Your task to perform on an android device: Empty the shopping cart on newegg. Add "alienware area 51" to the cart on newegg Image 0: 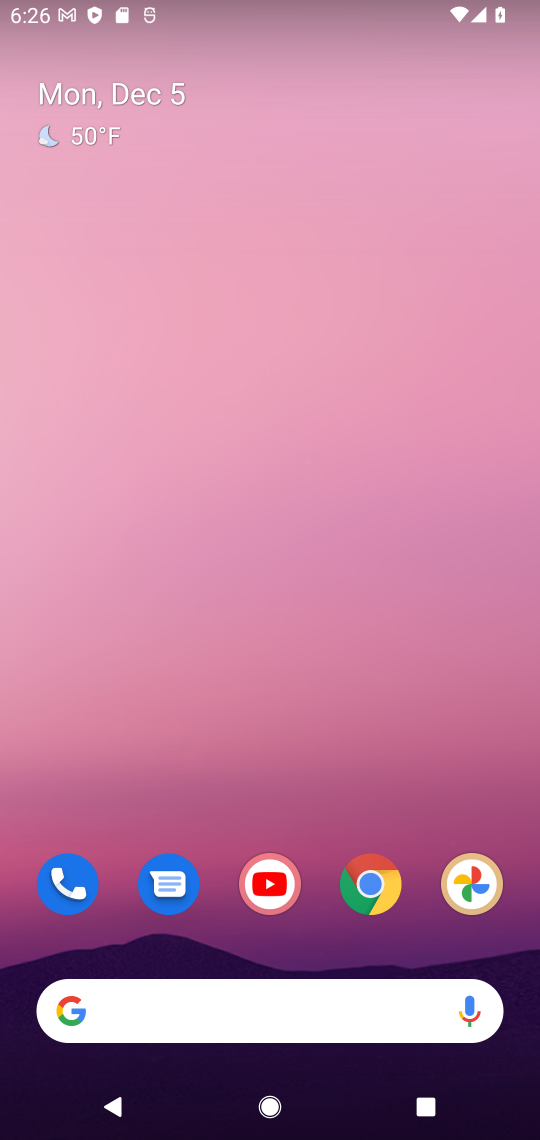
Step 0: click (371, 886)
Your task to perform on an android device: Empty the shopping cart on newegg. Add "alienware area 51" to the cart on newegg Image 1: 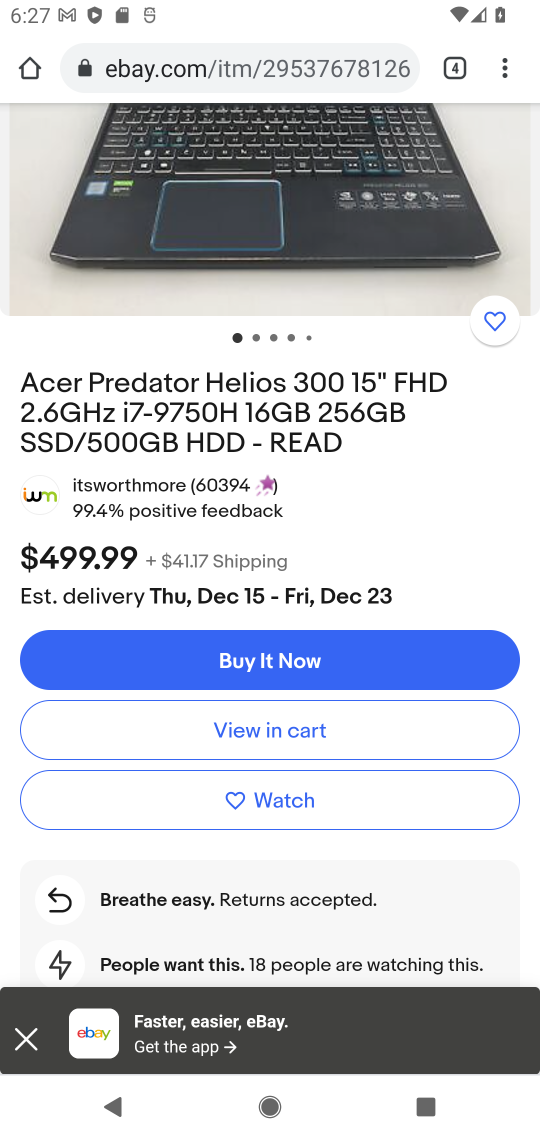
Step 1: press home button
Your task to perform on an android device: Empty the shopping cart on newegg. Add "alienware area 51" to the cart on newegg Image 2: 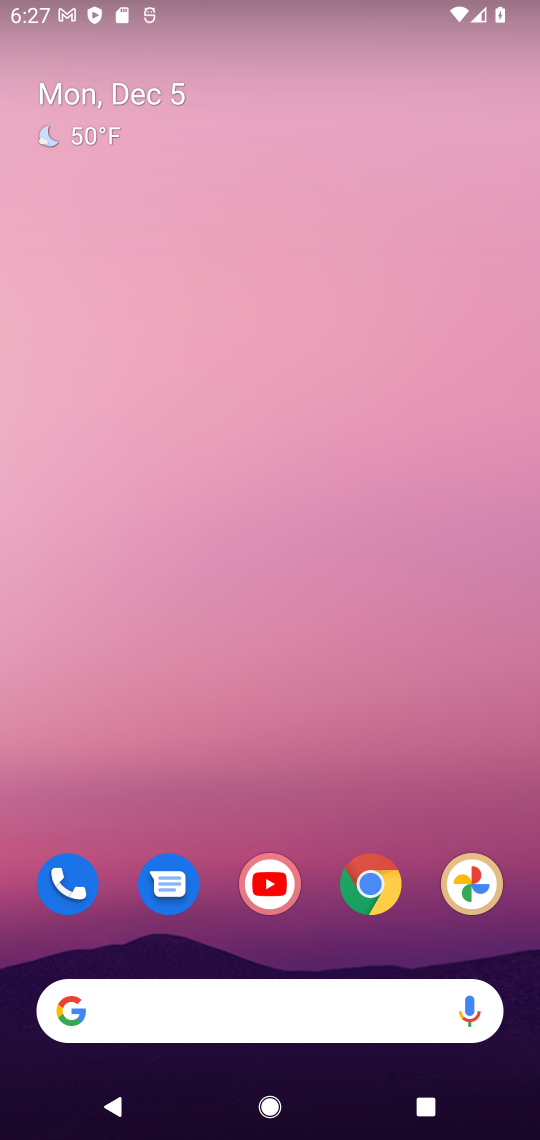
Step 2: click (379, 878)
Your task to perform on an android device: Empty the shopping cart on newegg. Add "alienware area 51" to the cart on newegg Image 3: 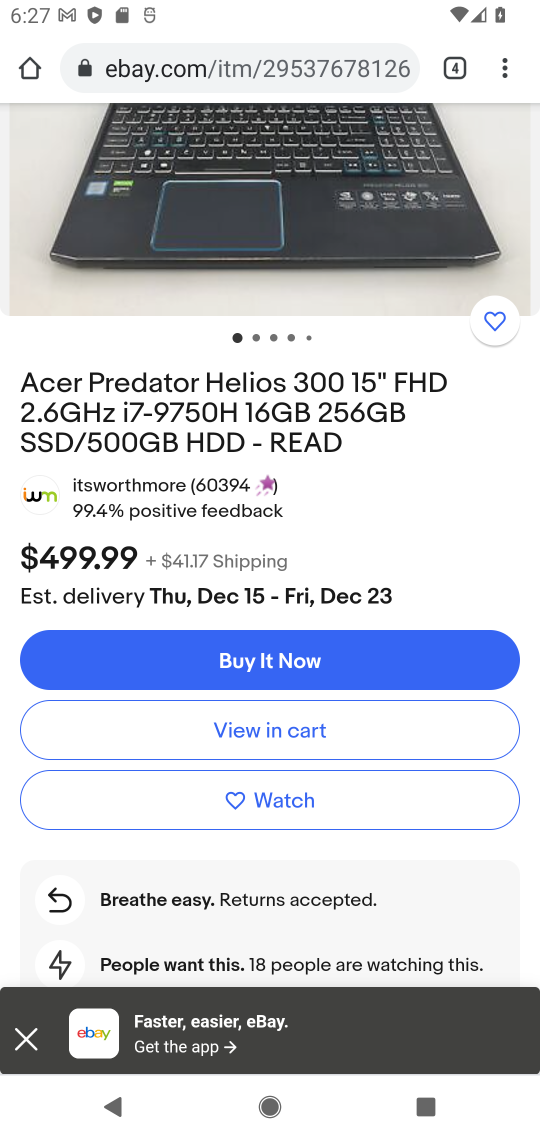
Step 3: click (457, 63)
Your task to perform on an android device: Empty the shopping cart on newegg. Add "alienware area 51" to the cart on newegg Image 4: 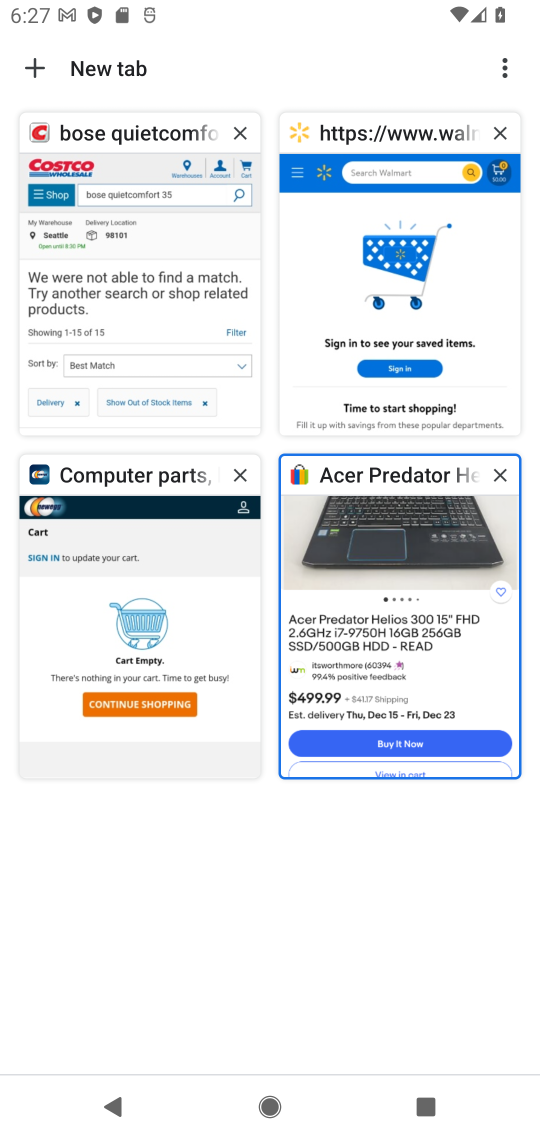
Step 4: click (125, 605)
Your task to perform on an android device: Empty the shopping cart on newegg. Add "alienware area 51" to the cart on newegg Image 5: 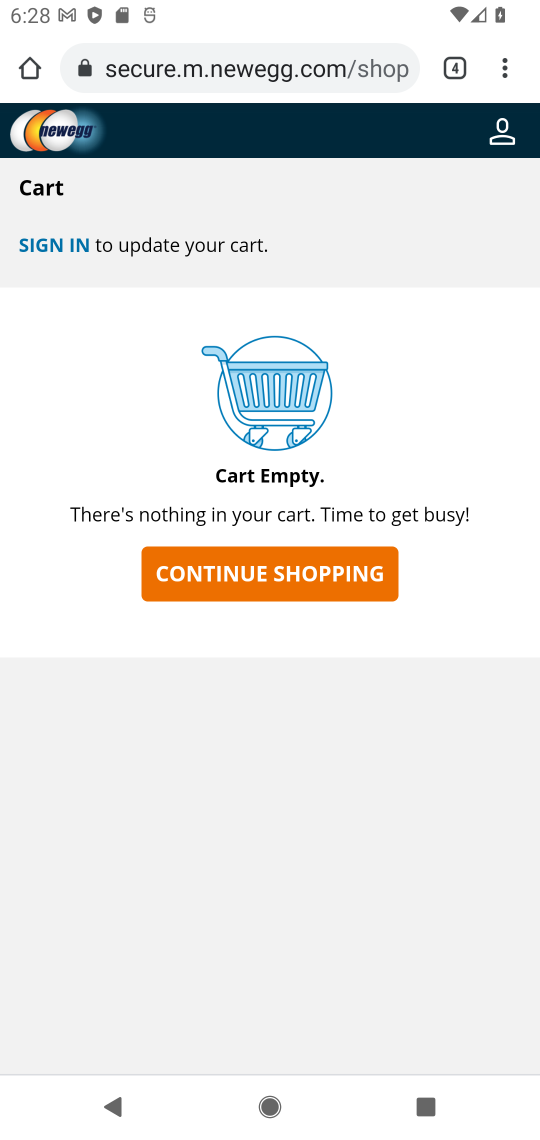
Step 5: click (348, 565)
Your task to perform on an android device: Empty the shopping cart on newegg. Add "alienware area 51" to the cart on newegg Image 6: 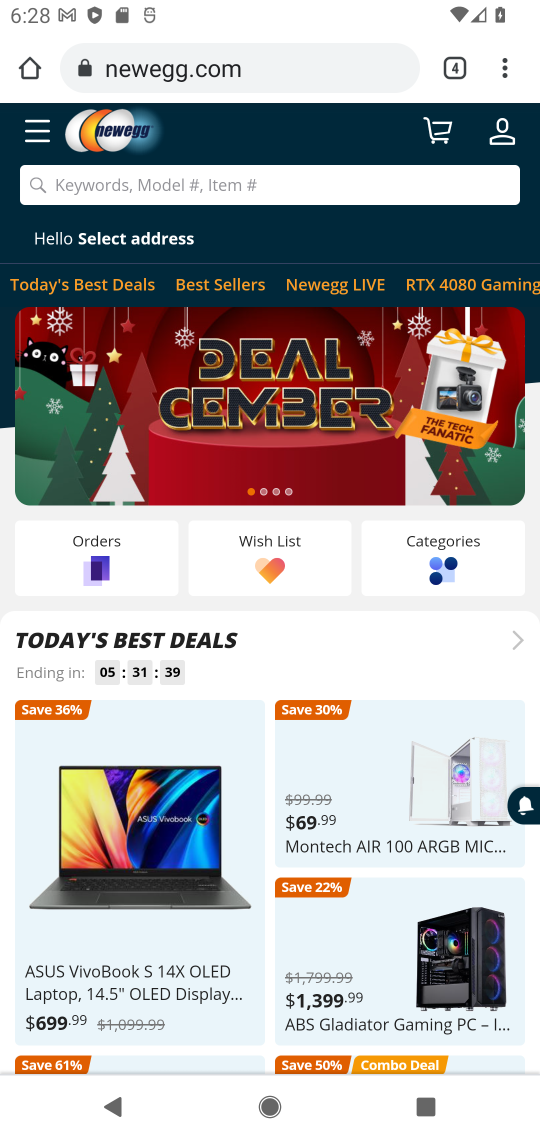
Step 6: click (406, 188)
Your task to perform on an android device: Empty the shopping cart on newegg. Add "alienware area 51" to the cart on newegg Image 7: 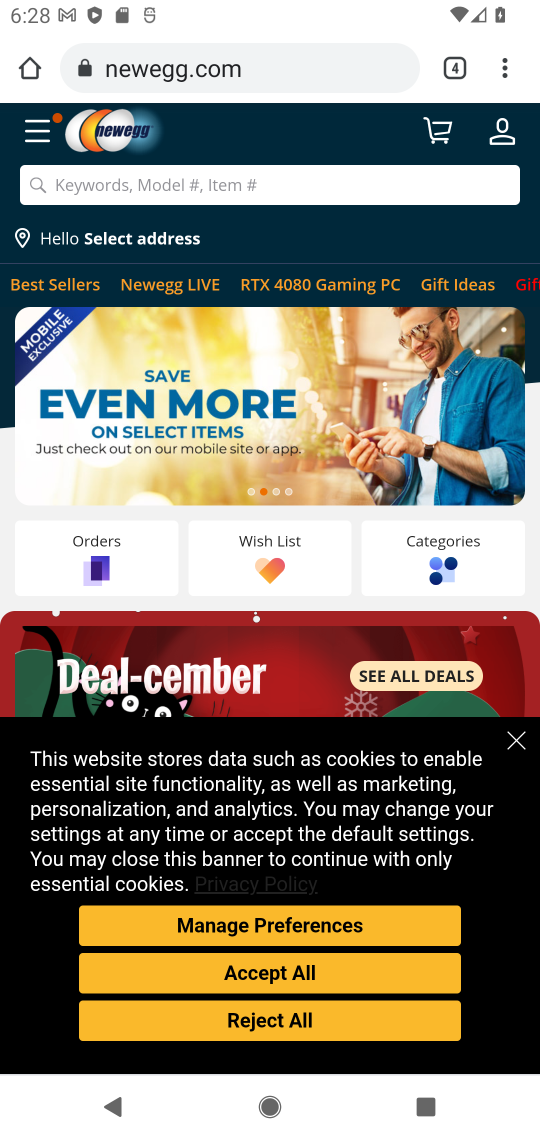
Step 7: type "alienware area 51"
Your task to perform on an android device: Empty the shopping cart on newegg. Add "alienware area 51" to the cart on newegg Image 8: 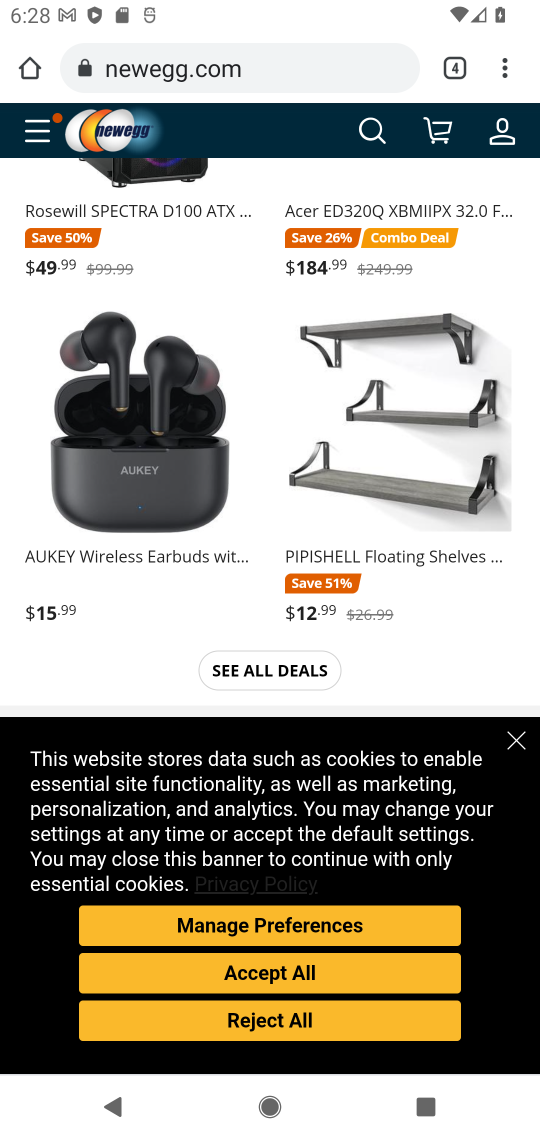
Step 8: click (295, 1028)
Your task to perform on an android device: Empty the shopping cart on newegg. Add "alienware area 51" to the cart on newegg Image 9: 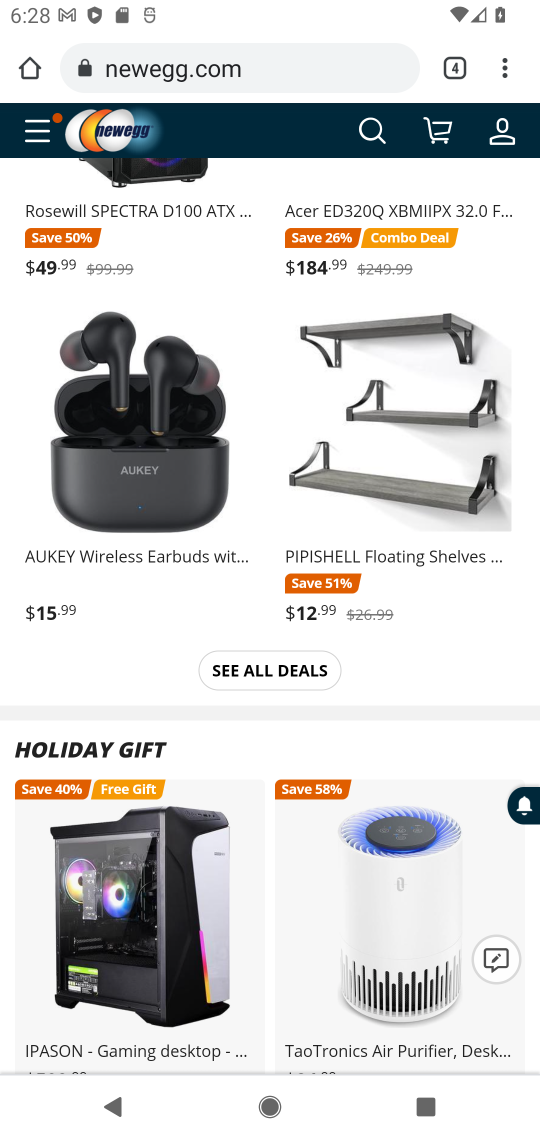
Step 9: drag from (259, 247) to (180, 769)
Your task to perform on an android device: Empty the shopping cart on newegg. Add "alienware area 51" to the cart on newegg Image 10: 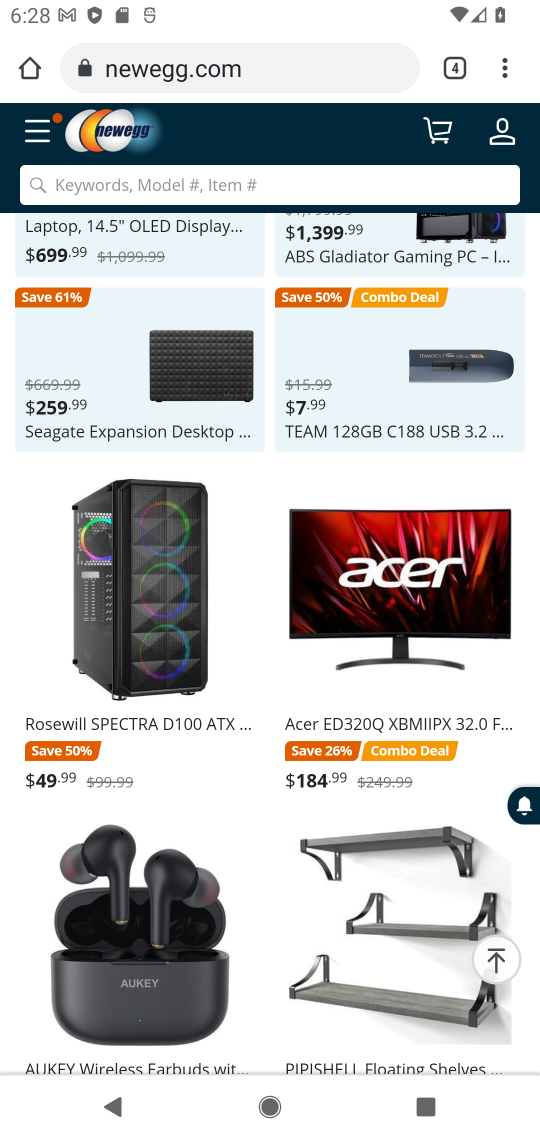
Step 10: drag from (251, 404) to (232, 1078)
Your task to perform on an android device: Empty the shopping cart on newegg. Add "alienware area 51" to the cart on newegg Image 11: 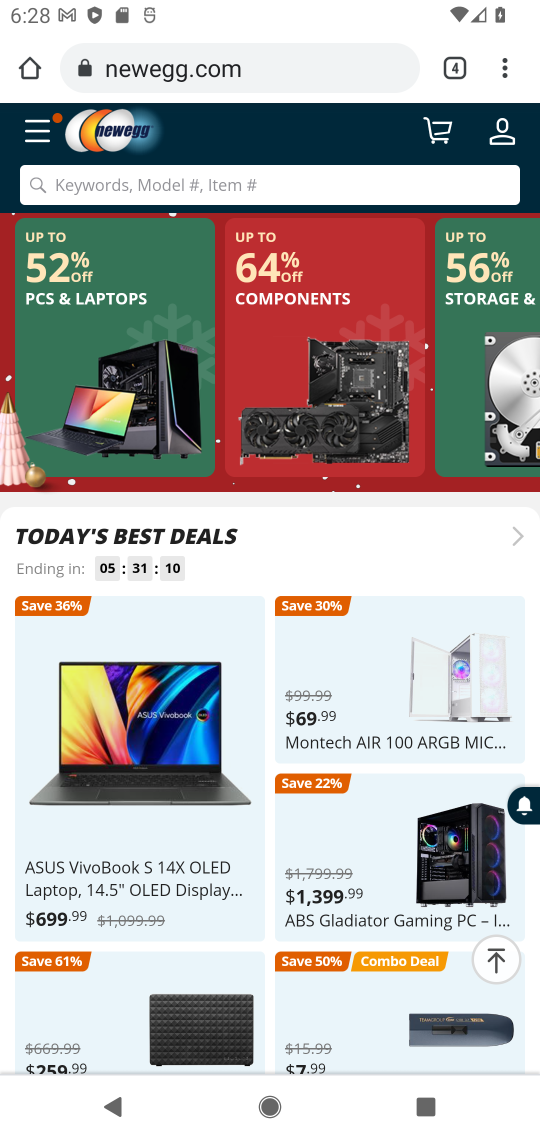
Step 11: click (203, 174)
Your task to perform on an android device: Empty the shopping cart on newegg. Add "alienware area 51" to the cart on newegg Image 12: 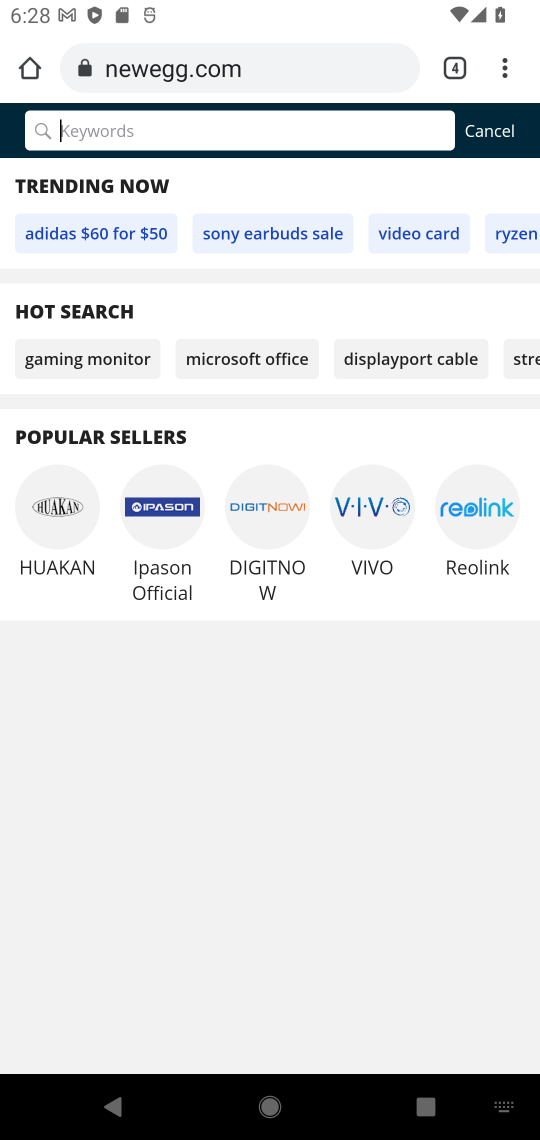
Step 12: type "alienware area 51"
Your task to perform on an android device: Empty the shopping cart on newegg. Add "alienware area 51" to the cart on newegg Image 13: 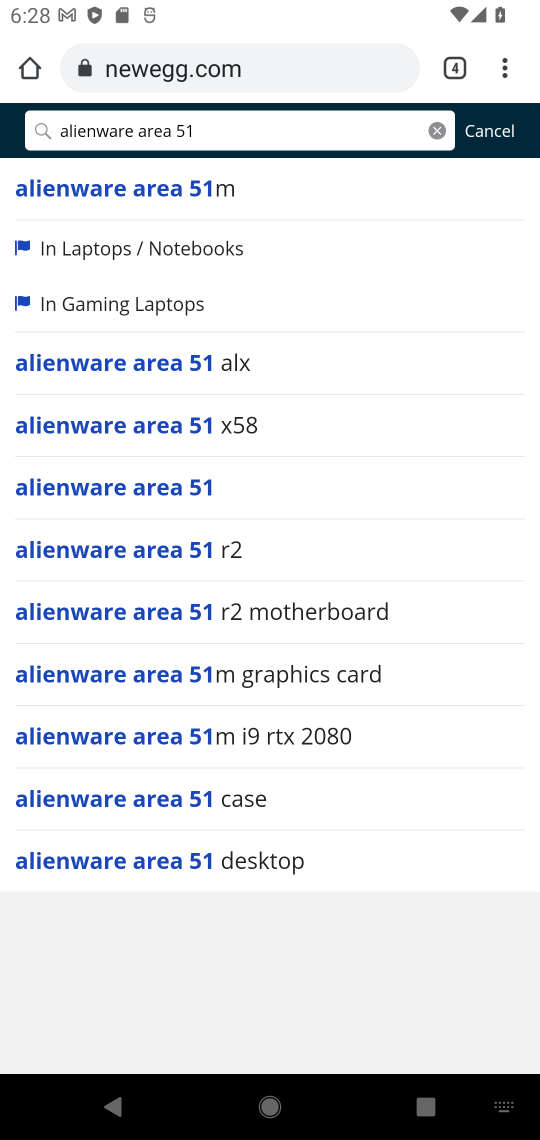
Step 13: click (113, 185)
Your task to perform on an android device: Empty the shopping cart on newegg. Add "alienware area 51" to the cart on newegg Image 14: 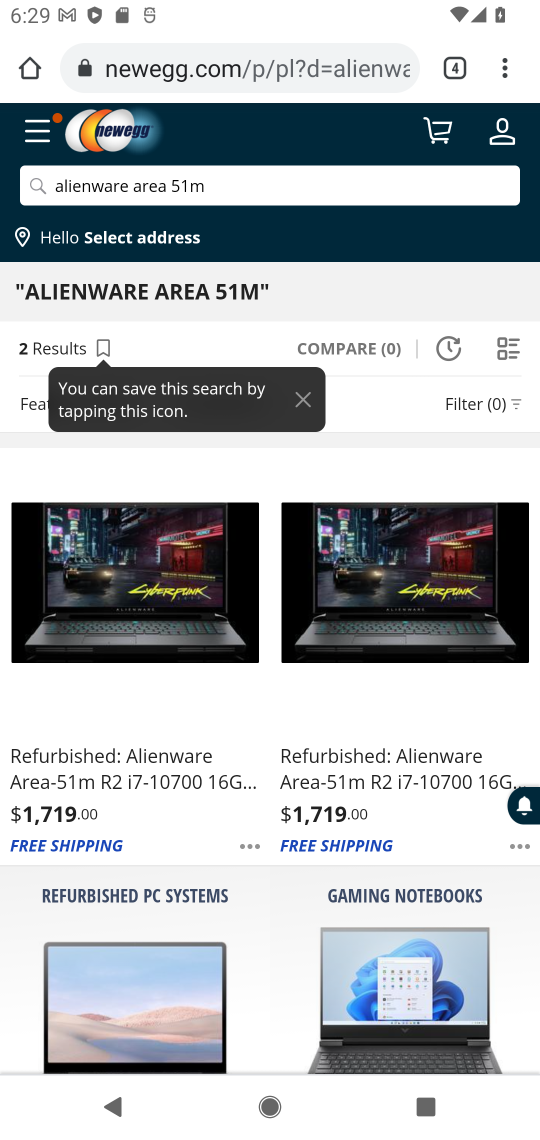
Step 14: click (151, 775)
Your task to perform on an android device: Empty the shopping cart on newegg. Add "alienware area 51" to the cart on newegg Image 15: 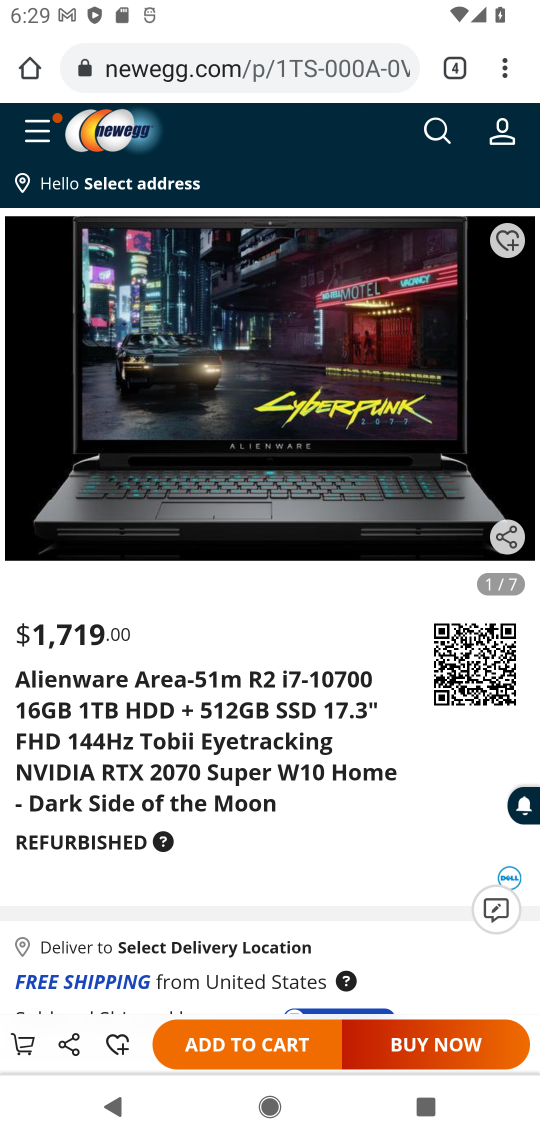
Step 15: click (281, 1041)
Your task to perform on an android device: Empty the shopping cart on newegg. Add "alienware area 51" to the cart on newegg Image 16: 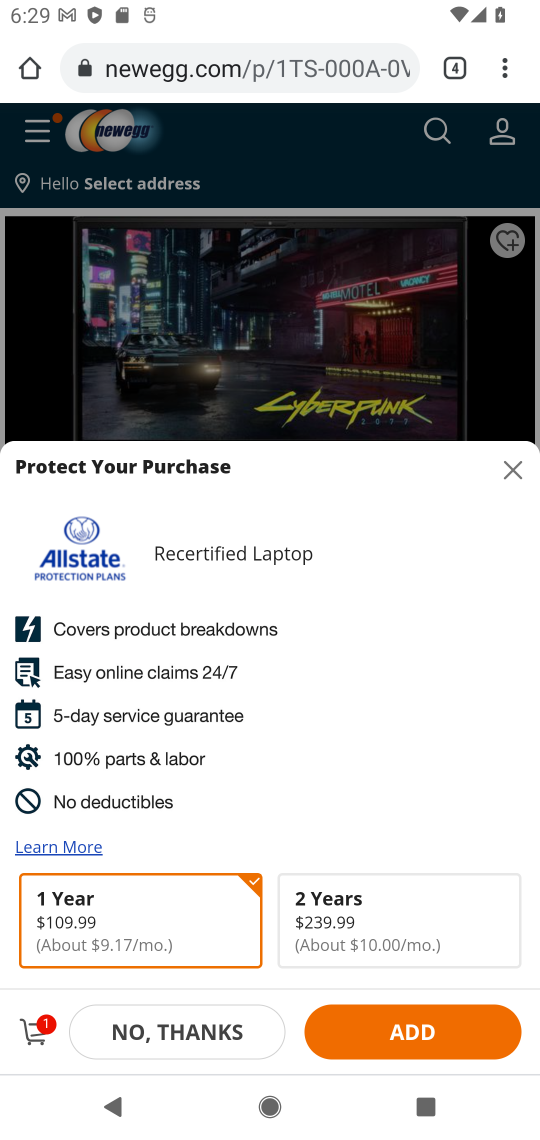
Step 16: task complete